Your task to perform on an android device: toggle improve location accuracy Image 0: 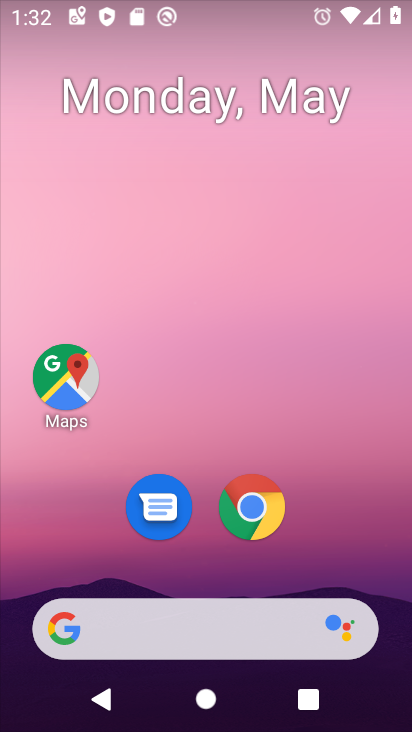
Step 0: drag from (239, 727) to (233, 27)
Your task to perform on an android device: toggle improve location accuracy Image 1: 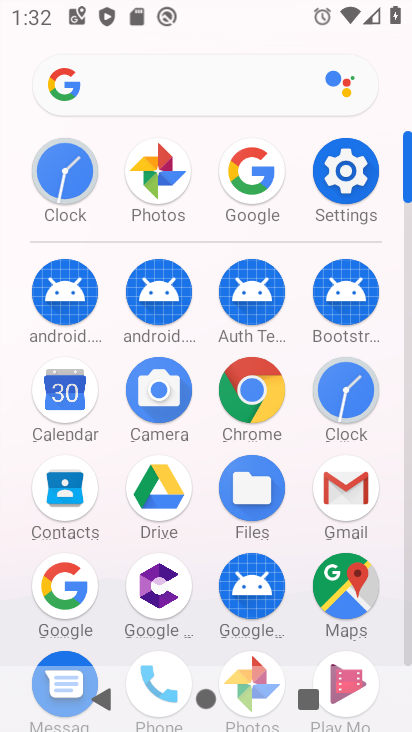
Step 1: click (338, 168)
Your task to perform on an android device: toggle improve location accuracy Image 2: 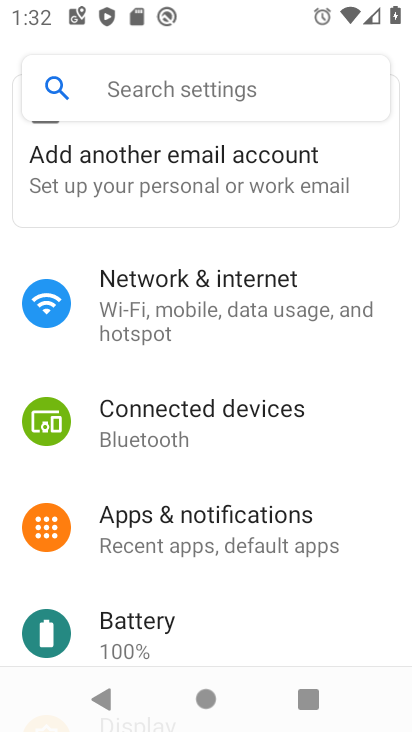
Step 2: drag from (176, 637) to (180, 294)
Your task to perform on an android device: toggle improve location accuracy Image 3: 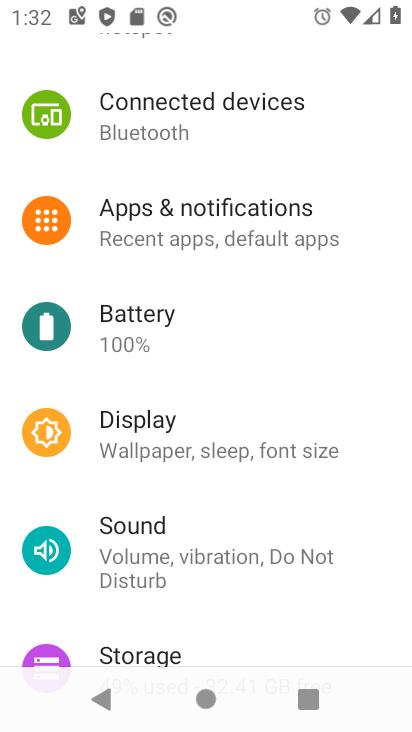
Step 3: drag from (235, 632) to (210, 211)
Your task to perform on an android device: toggle improve location accuracy Image 4: 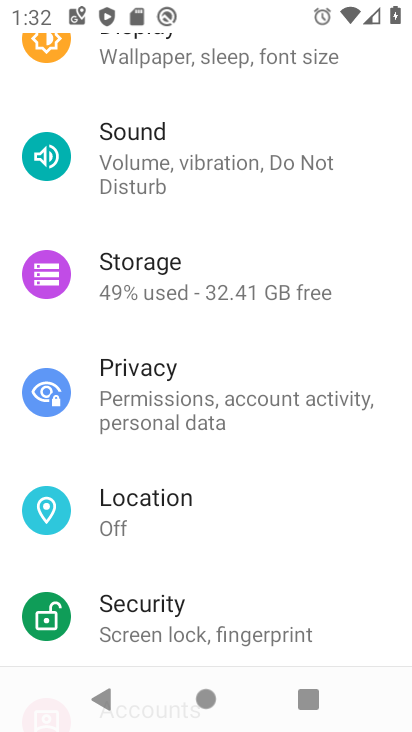
Step 4: click (134, 503)
Your task to perform on an android device: toggle improve location accuracy Image 5: 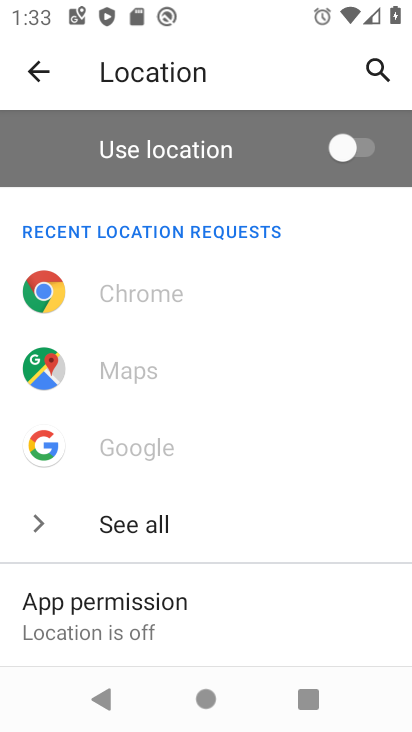
Step 5: drag from (220, 653) to (208, 272)
Your task to perform on an android device: toggle improve location accuracy Image 6: 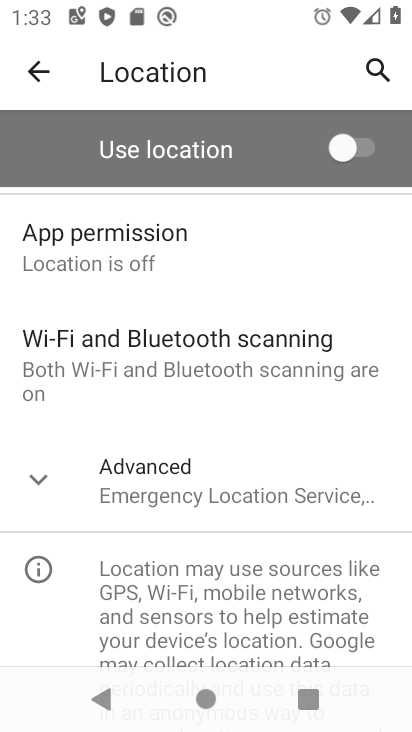
Step 6: click (131, 494)
Your task to perform on an android device: toggle improve location accuracy Image 7: 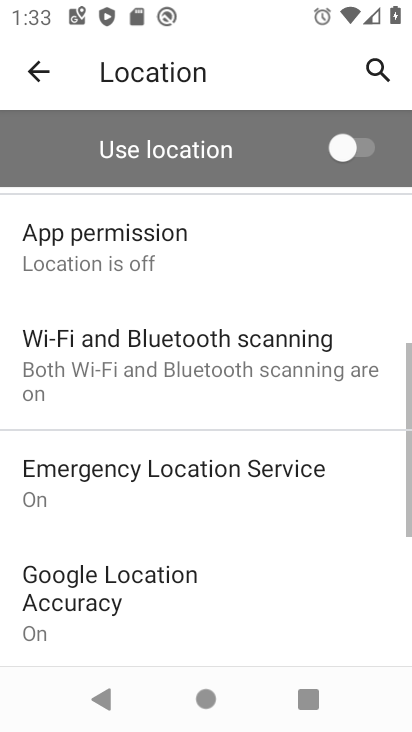
Step 7: drag from (237, 636) to (219, 412)
Your task to perform on an android device: toggle improve location accuracy Image 8: 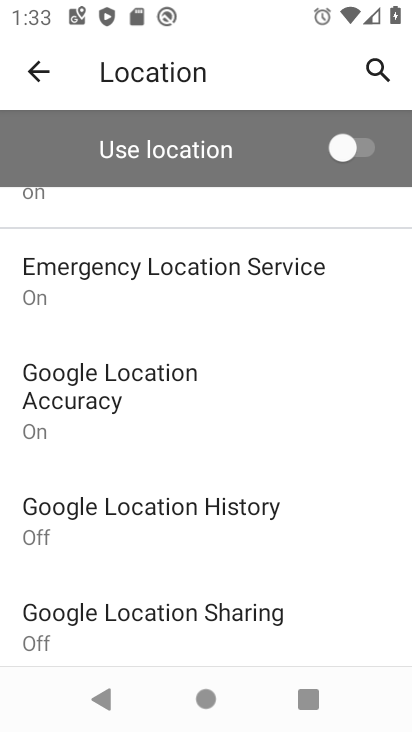
Step 8: click (82, 386)
Your task to perform on an android device: toggle improve location accuracy Image 9: 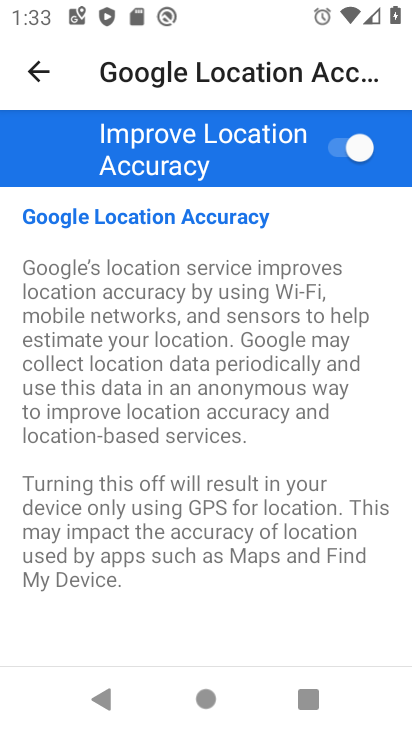
Step 9: click (341, 147)
Your task to perform on an android device: toggle improve location accuracy Image 10: 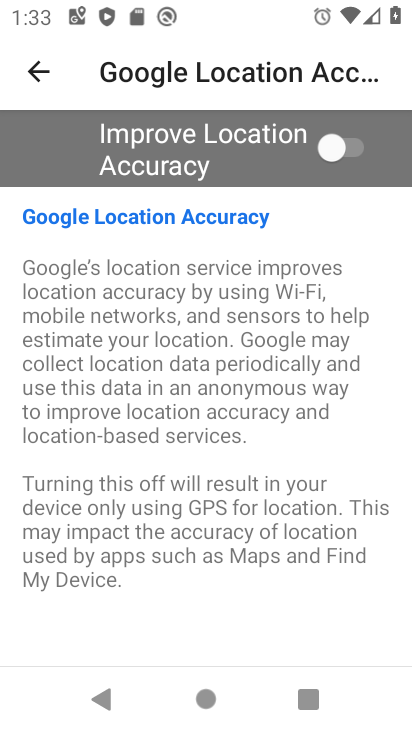
Step 10: task complete